Your task to perform on an android device: open app "Duolingo: language lessons" (install if not already installed), go to login, and select forgot password Image 0: 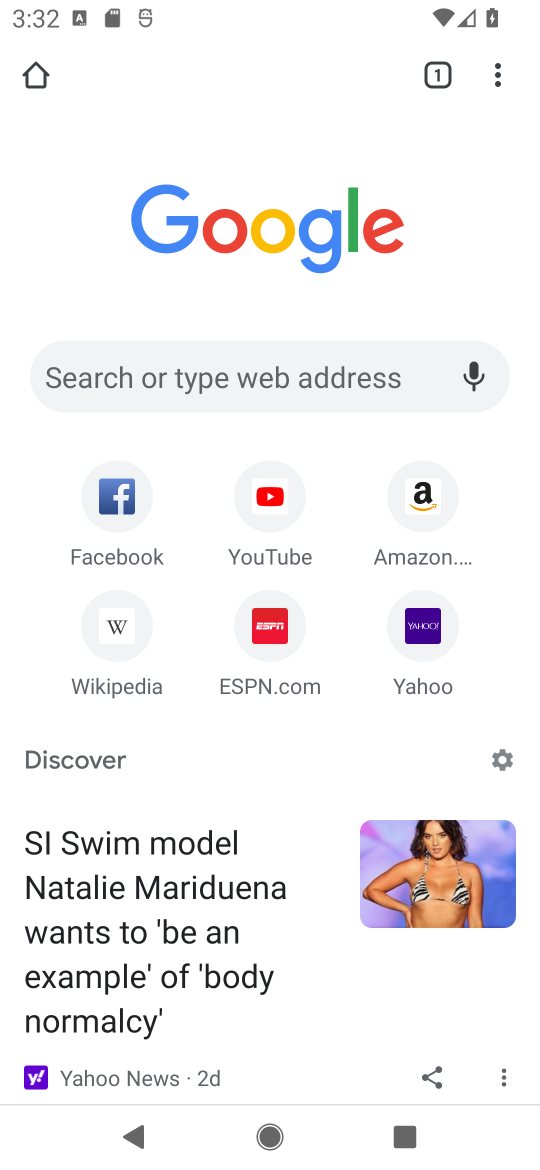
Step 0: press home button
Your task to perform on an android device: open app "Duolingo: language lessons" (install if not already installed), go to login, and select forgot password Image 1: 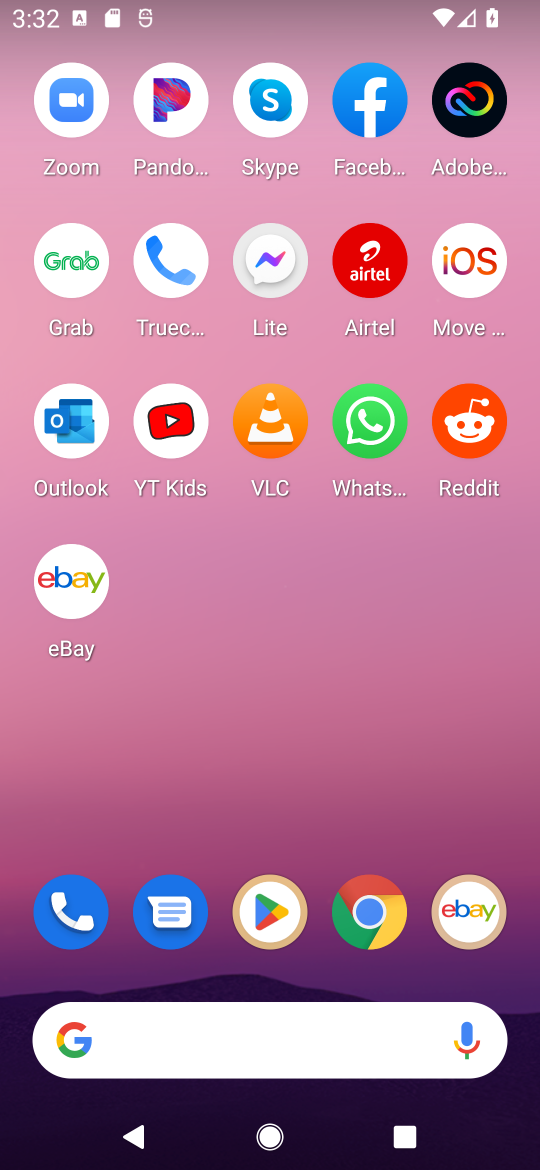
Step 1: drag from (194, 1043) to (253, 87)
Your task to perform on an android device: open app "Duolingo: language lessons" (install if not already installed), go to login, and select forgot password Image 2: 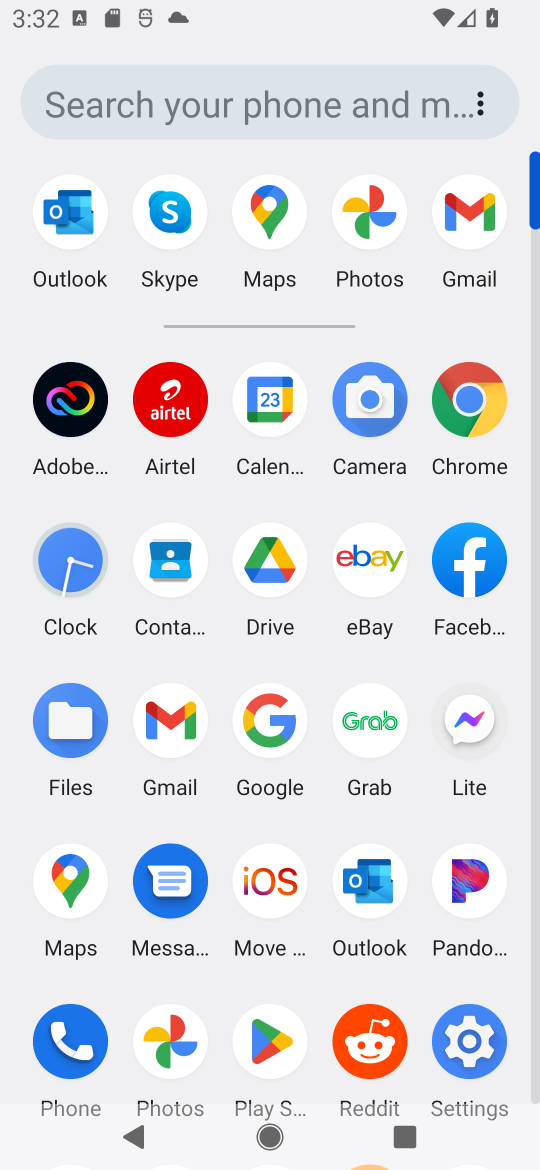
Step 2: click (273, 1048)
Your task to perform on an android device: open app "Duolingo: language lessons" (install if not already installed), go to login, and select forgot password Image 3: 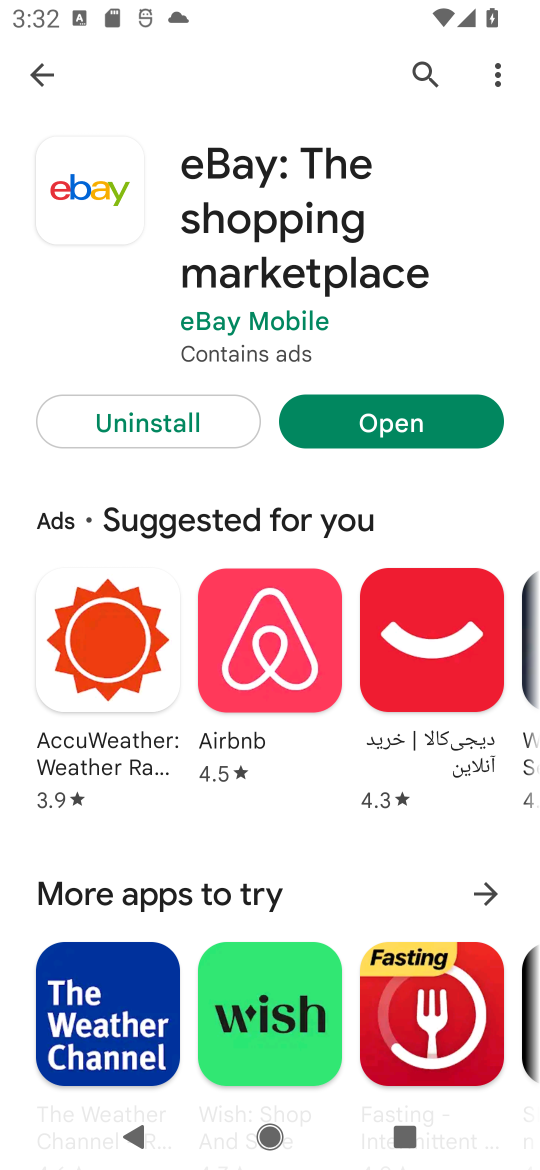
Step 3: press back button
Your task to perform on an android device: open app "Duolingo: language lessons" (install if not already installed), go to login, and select forgot password Image 4: 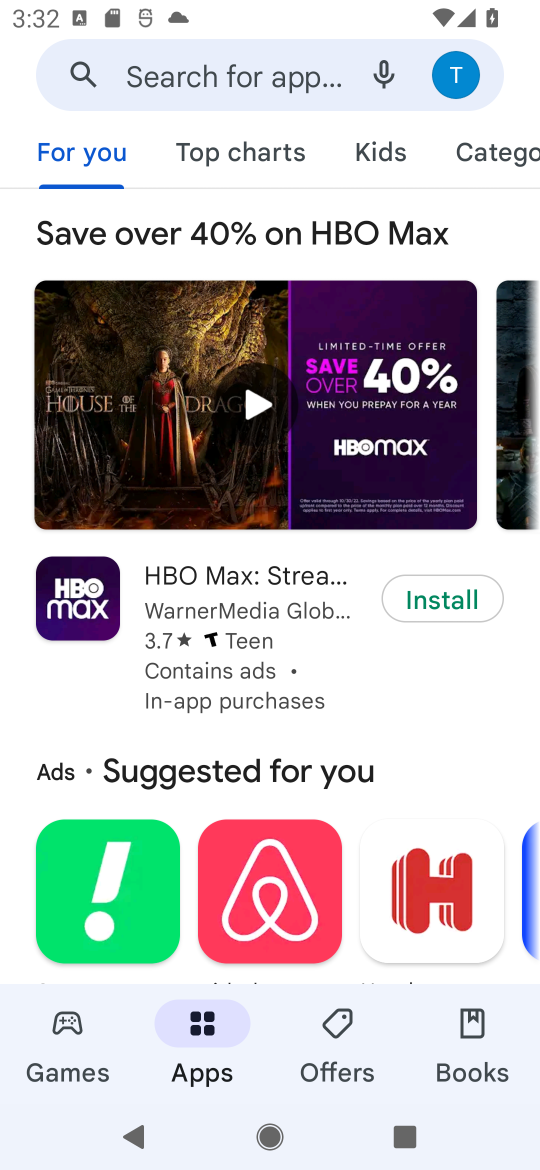
Step 4: click (215, 63)
Your task to perform on an android device: open app "Duolingo: language lessons" (install if not already installed), go to login, and select forgot password Image 5: 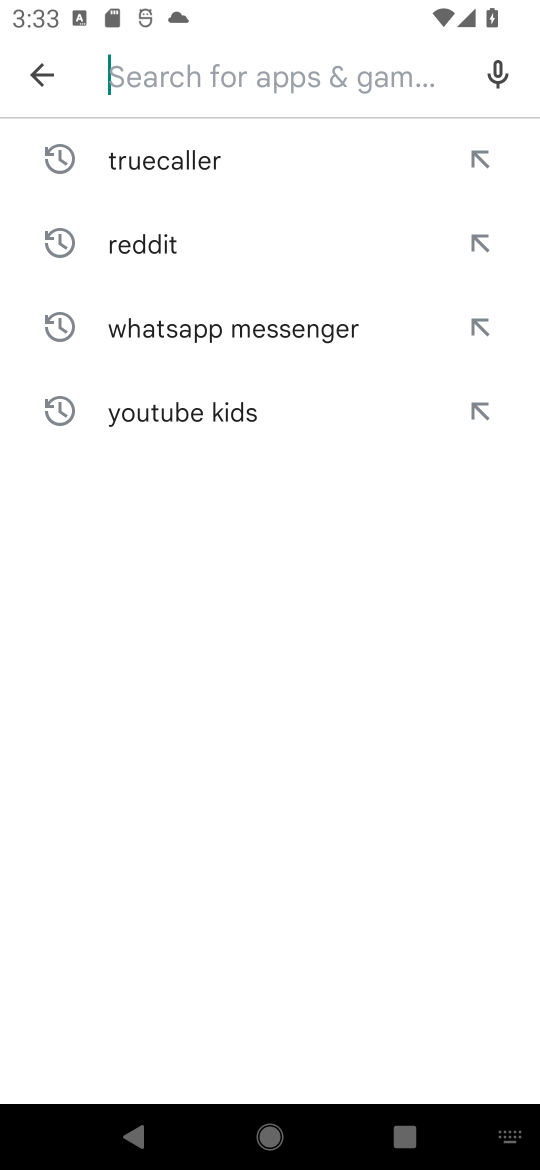
Step 5: type "Duolingo: language lessons"
Your task to perform on an android device: open app "Duolingo: language lessons" (install if not already installed), go to login, and select forgot password Image 6: 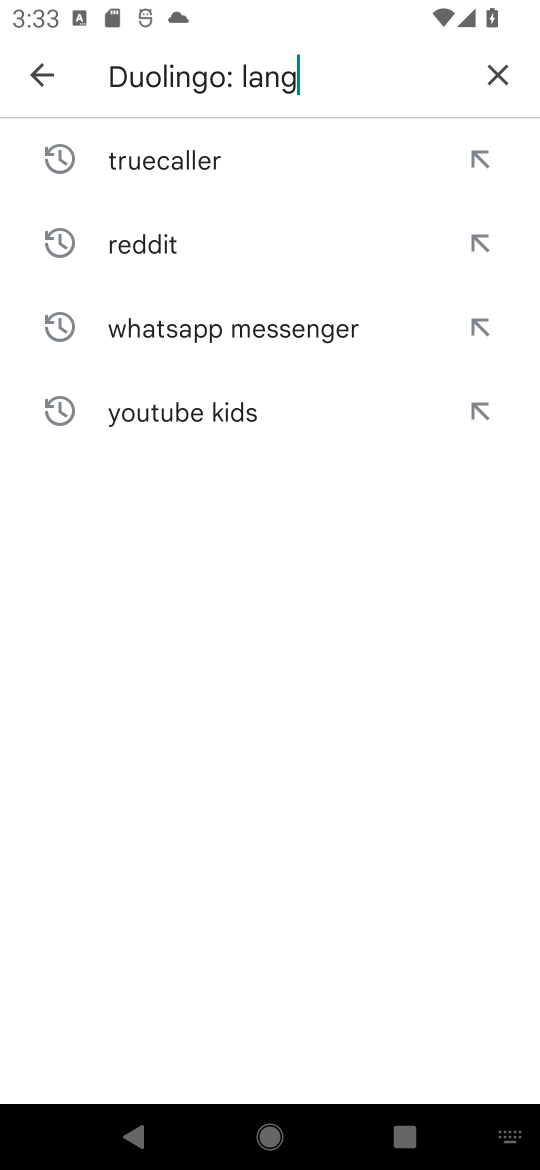
Step 6: type ""
Your task to perform on an android device: open app "Duolingo: language lessons" (install if not already installed), go to login, and select forgot password Image 7: 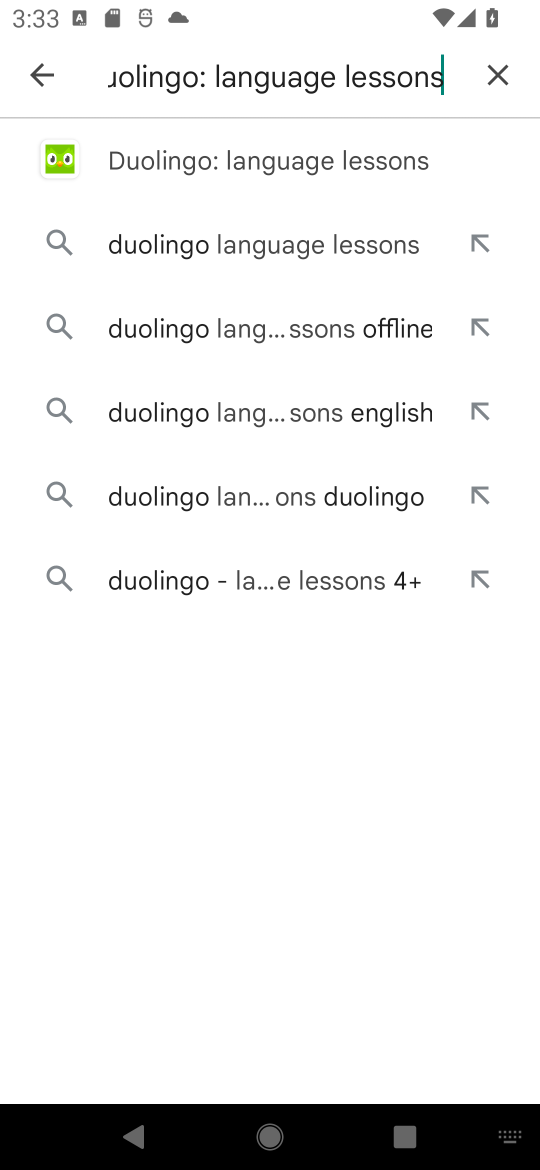
Step 7: click (365, 162)
Your task to perform on an android device: open app "Duolingo: language lessons" (install if not already installed), go to login, and select forgot password Image 8: 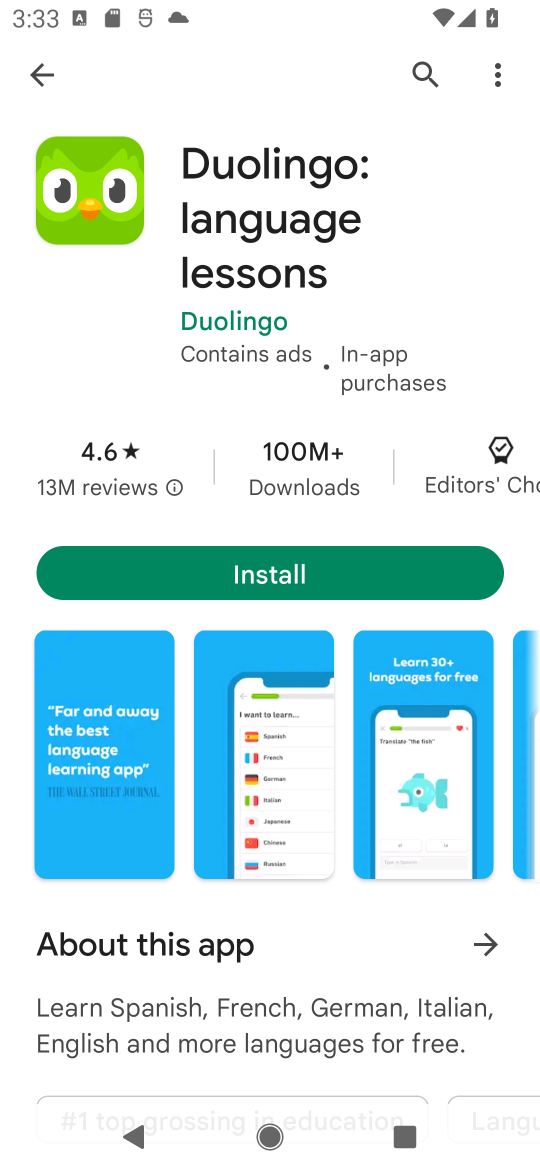
Step 8: click (273, 577)
Your task to perform on an android device: open app "Duolingo: language lessons" (install if not already installed), go to login, and select forgot password Image 9: 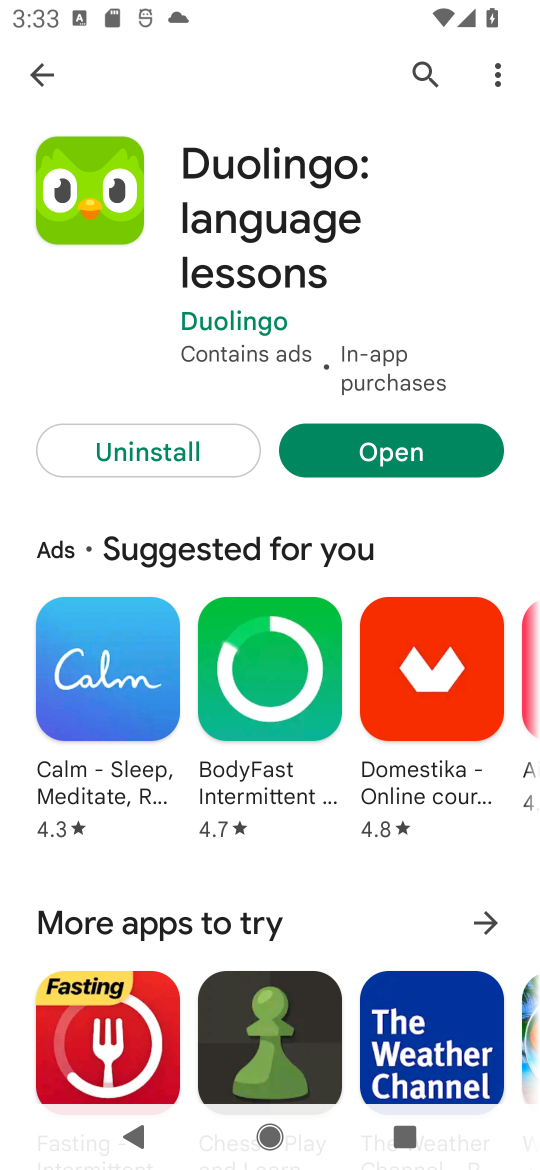
Step 9: click (388, 448)
Your task to perform on an android device: open app "Duolingo: language lessons" (install if not already installed), go to login, and select forgot password Image 10: 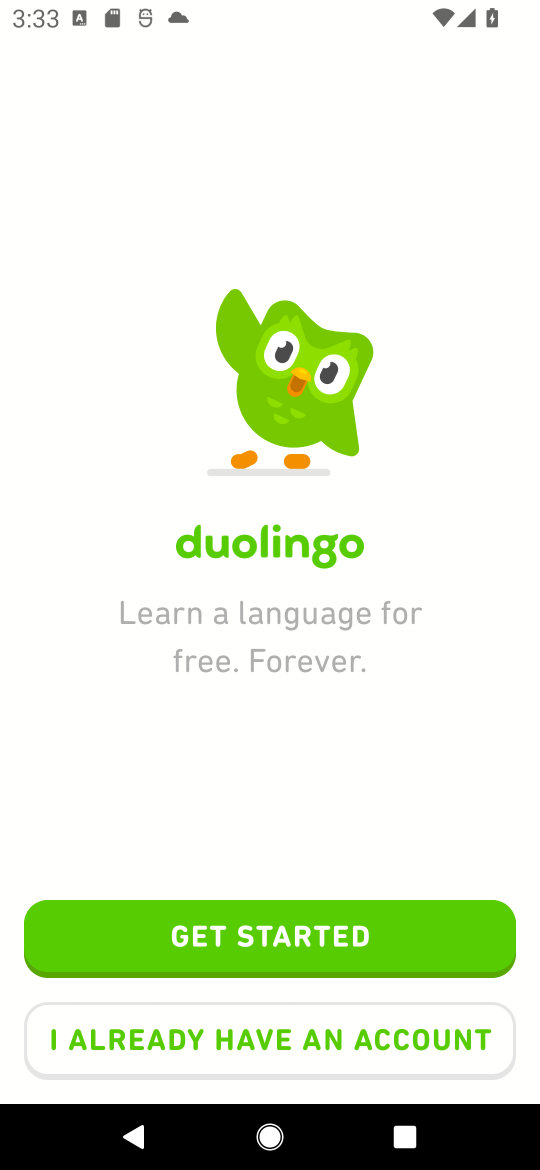
Step 10: click (316, 1033)
Your task to perform on an android device: open app "Duolingo: language lessons" (install if not already installed), go to login, and select forgot password Image 11: 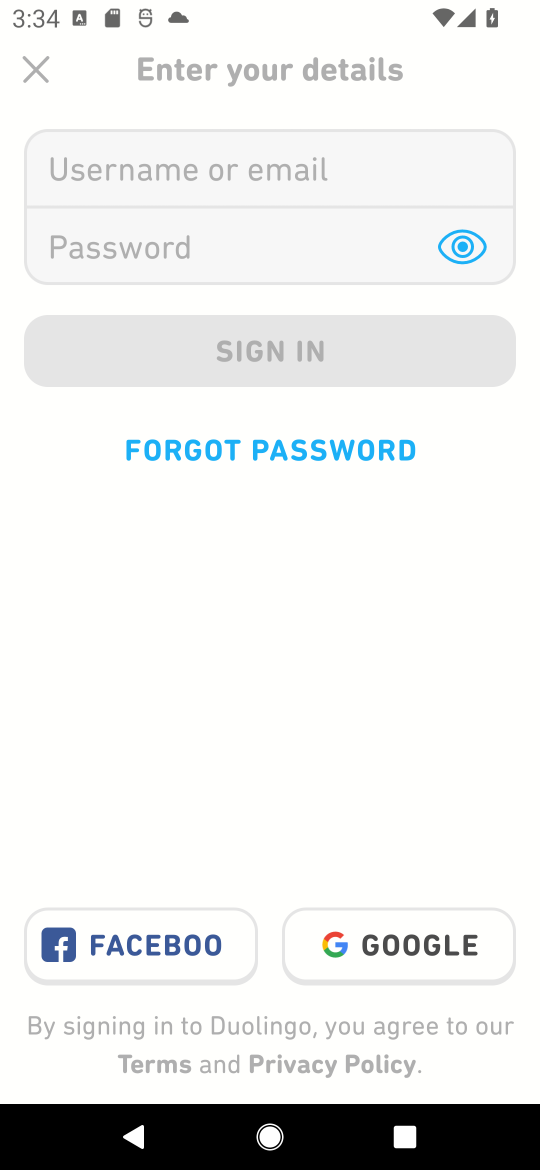
Step 11: click (369, 445)
Your task to perform on an android device: open app "Duolingo: language lessons" (install if not already installed), go to login, and select forgot password Image 12: 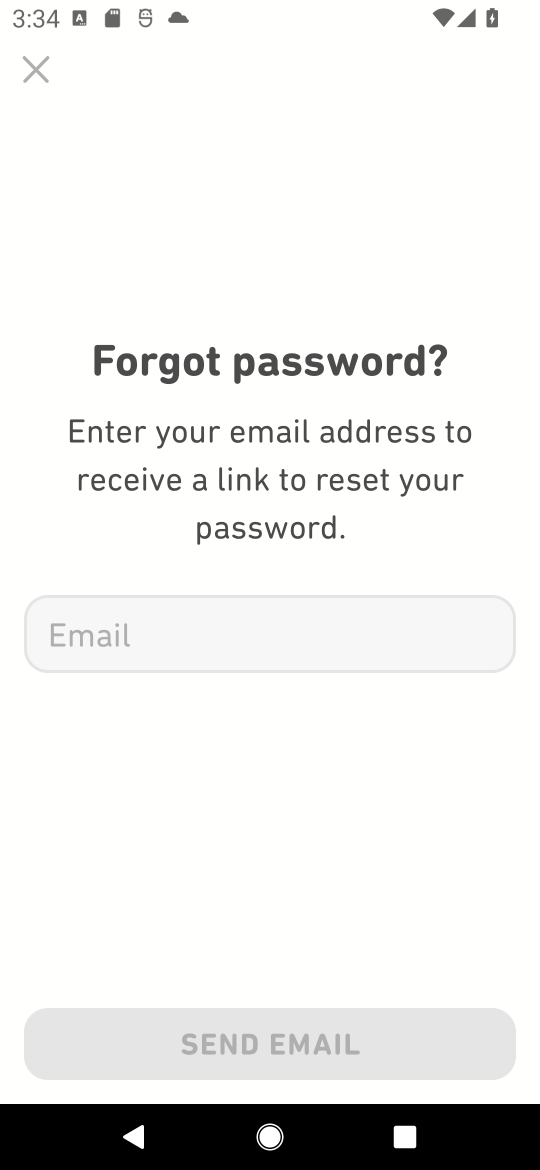
Step 12: task complete